Your task to perform on an android device: stop showing notifications on the lock screen Image 0: 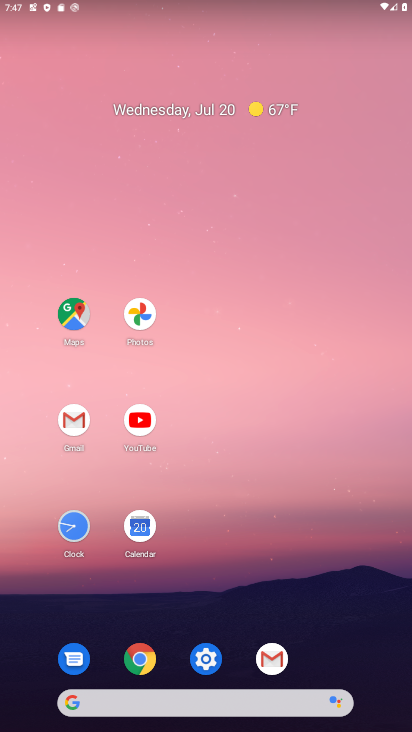
Step 0: click (206, 658)
Your task to perform on an android device: stop showing notifications on the lock screen Image 1: 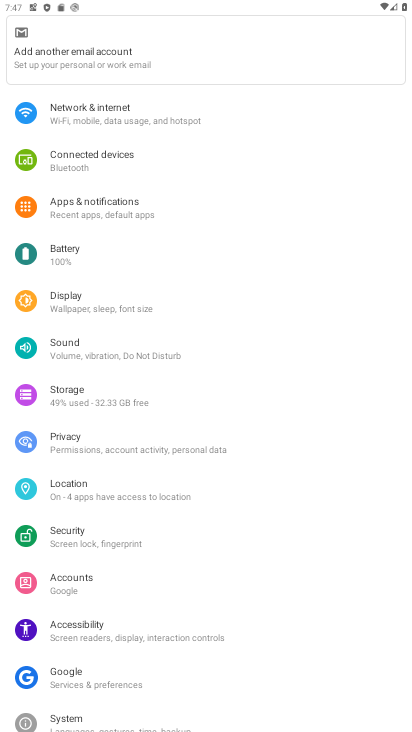
Step 1: click (105, 199)
Your task to perform on an android device: stop showing notifications on the lock screen Image 2: 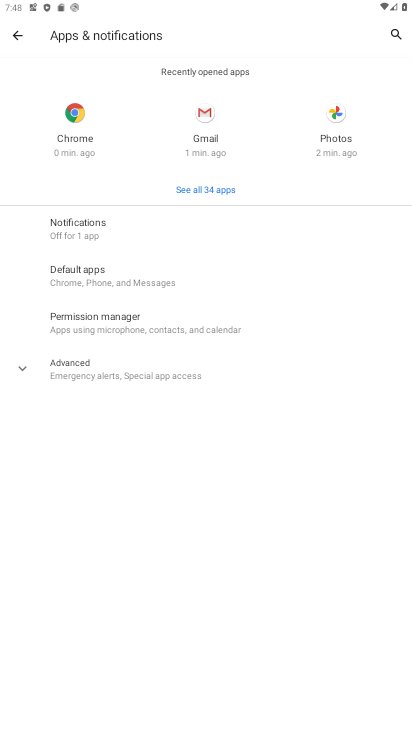
Step 2: click (83, 216)
Your task to perform on an android device: stop showing notifications on the lock screen Image 3: 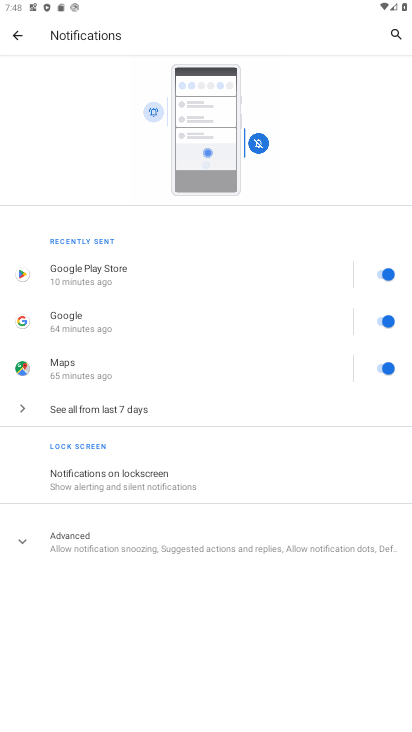
Step 3: click (122, 472)
Your task to perform on an android device: stop showing notifications on the lock screen Image 4: 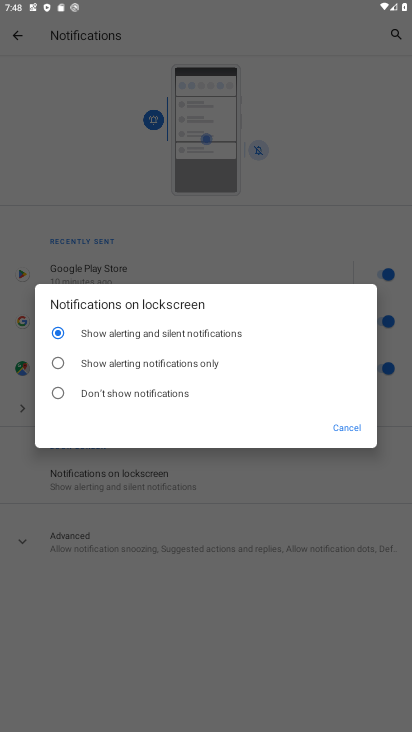
Step 4: task complete